Your task to perform on an android device: turn vacation reply on in the gmail app Image 0: 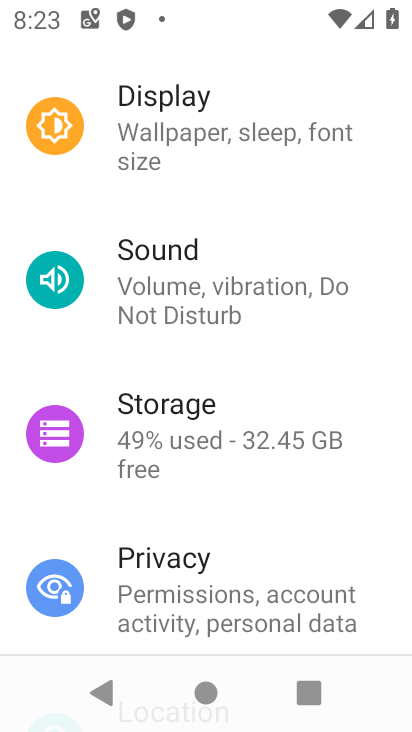
Step 0: task complete